Your task to perform on an android device: Go to privacy settings Image 0: 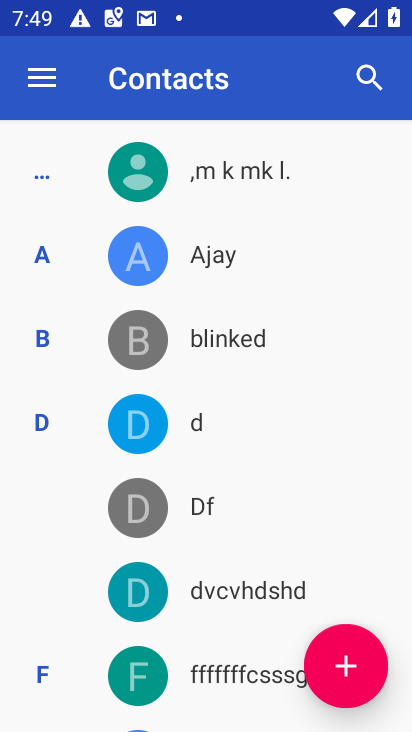
Step 0: press home button
Your task to perform on an android device: Go to privacy settings Image 1: 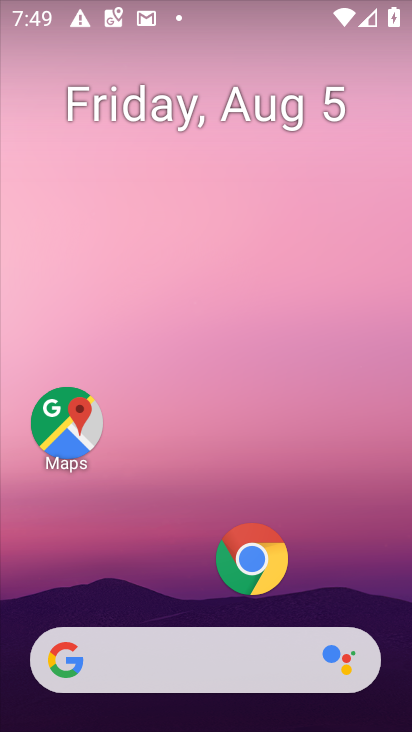
Step 1: drag from (172, 595) to (205, 196)
Your task to perform on an android device: Go to privacy settings Image 2: 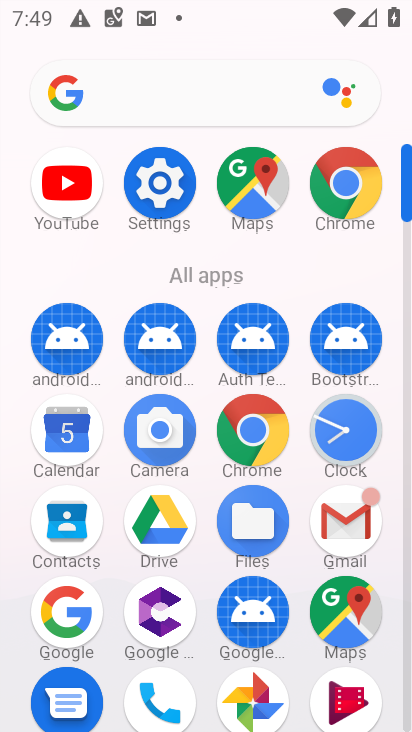
Step 2: click (171, 211)
Your task to perform on an android device: Go to privacy settings Image 3: 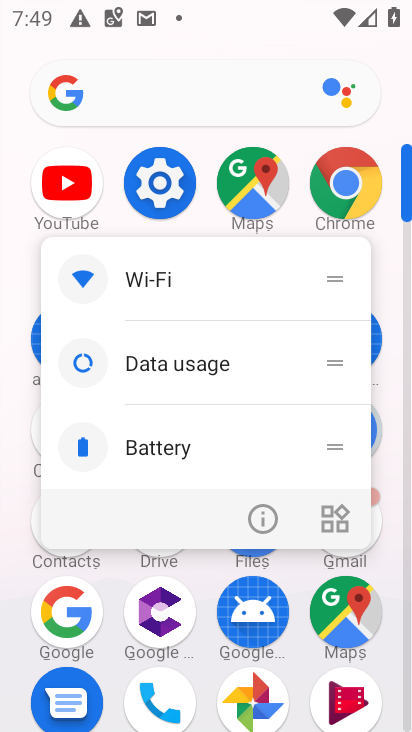
Step 3: click (158, 175)
Your task to perform on an android device: Go to privacy settings Image 4: 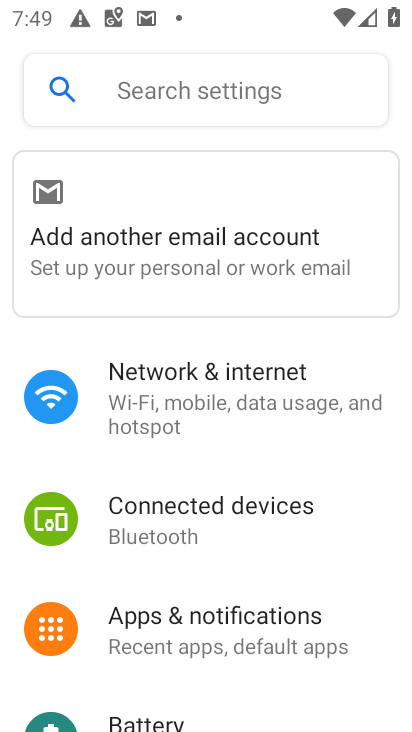
Step 4: drag from (220, 613) to (243, 370)
Your task to perform on an android device: Go to privacy settings Image 5: 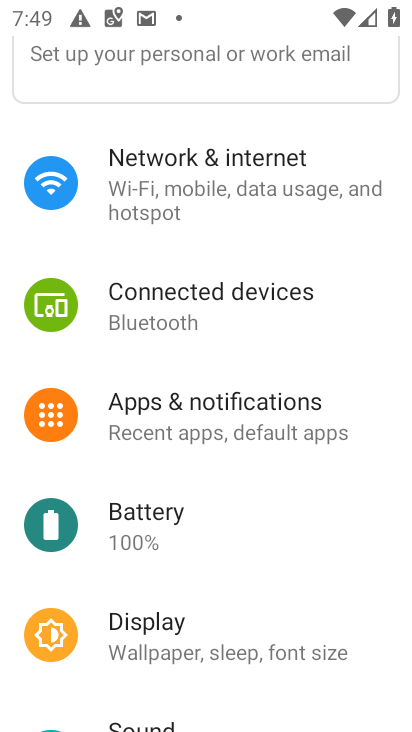
Step 5: drag from (223, 490) to (250, 274)
Your task to perform on an android device: Go to privacy settings Image 6: 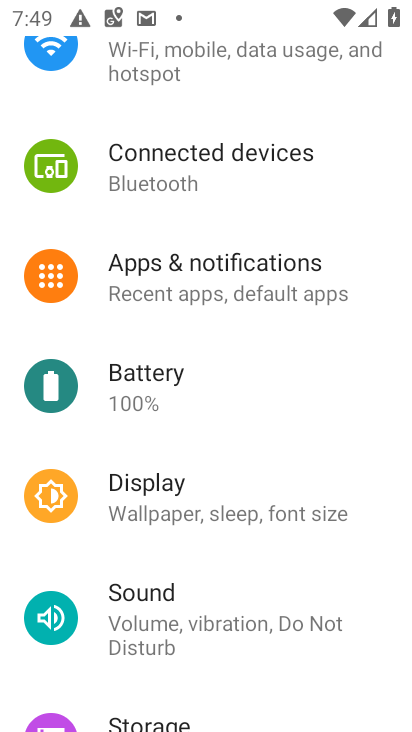
Step 6: drag from (208, 655) to (254, 235)
Your task to perform on an android device: Go to privacy settings Image 7: 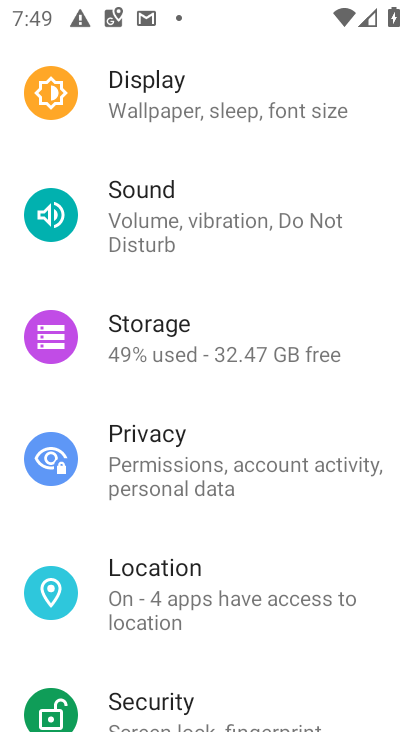
Step 7: click (146, 449)
Your task to perform on an android device: Go to privacy settings Image 8: 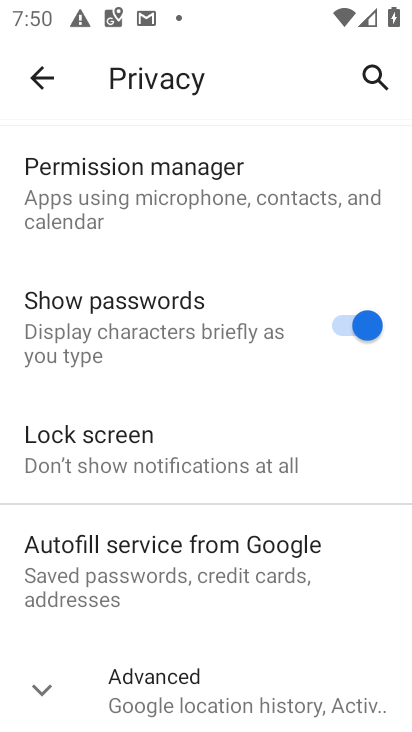
Step 8: task complete